Your task to perform on an android device: toggle improve location accuracy Image 0: 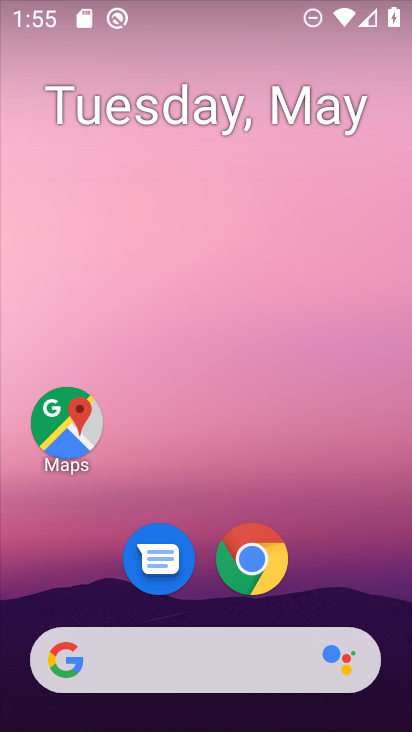
Step 0: drag from (390, 610) to (300, 119)
Your task to perform on an android device: toggle improve location accuracy Image 1: 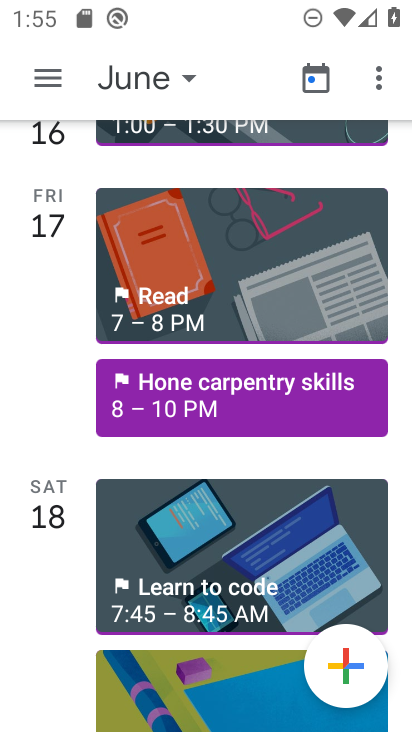
Step 1: press home button
Your task to perform on an android device: toggle improve location accuracy Image 2: 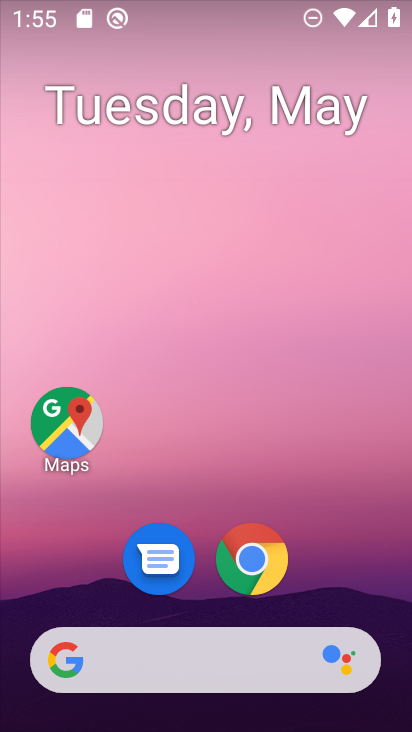
Step 2: drag from (381, 619) to (272, 141)
Your task to perform on an android device: toggle improve location accuracy Image 3: 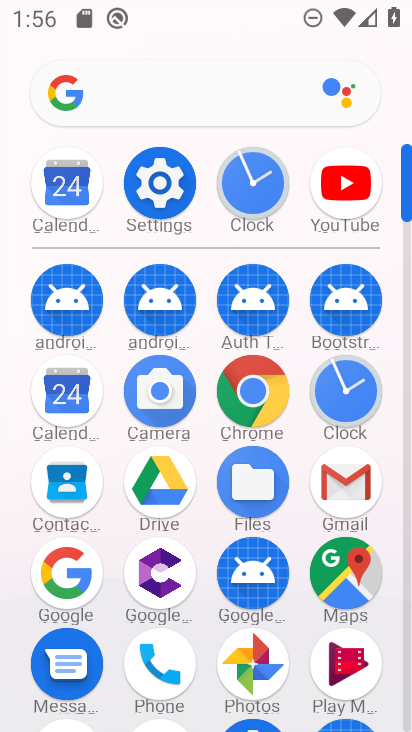
Step 3: click (165, 197)
Your task to perform on an android device: toggle improve location accuracy Image 4: 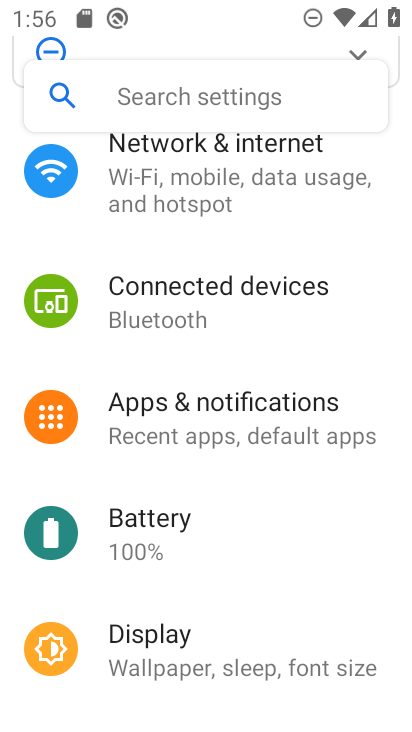
Step 4: drag from (198, 659) to (241, 346)
Your task to perform on an android device: toggle improve location accuracy Image 5: 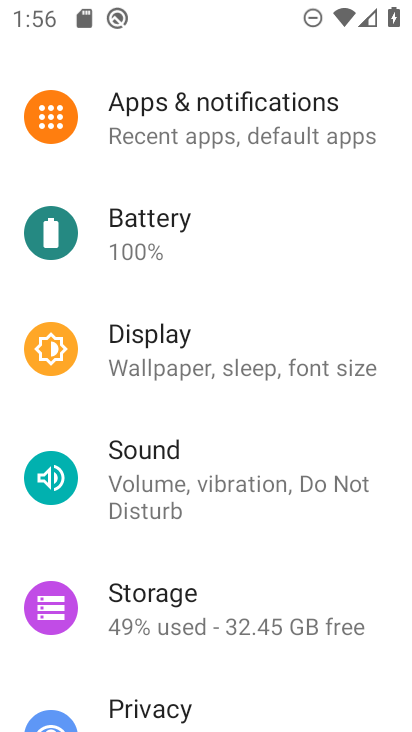
Step 5: drag from (158, 643) to (176, 329)
Your task to perform on an android device: toggle improve location accuracy Image 6: 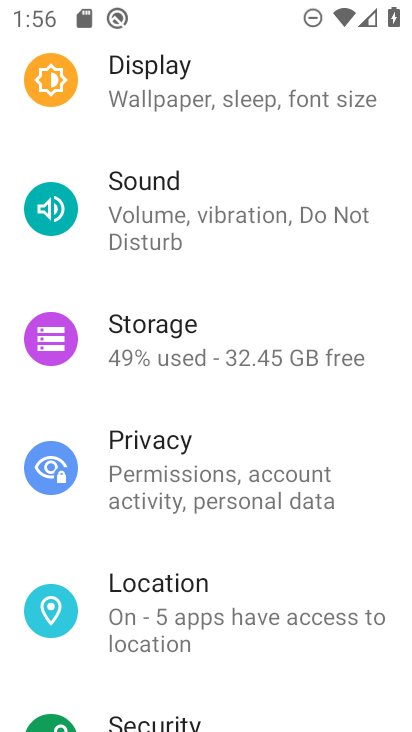
Step 6: click (193, 597)
Your task to perform on an android device: toggle improve location accuracy Image 7: 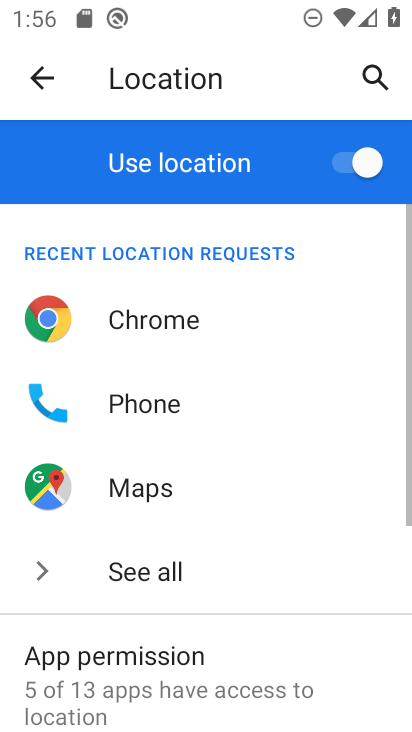
Step 7: drag from (158, 623) to (199, 271)
Your task to perform on an android device: toggle improve location accuracy Image 8: 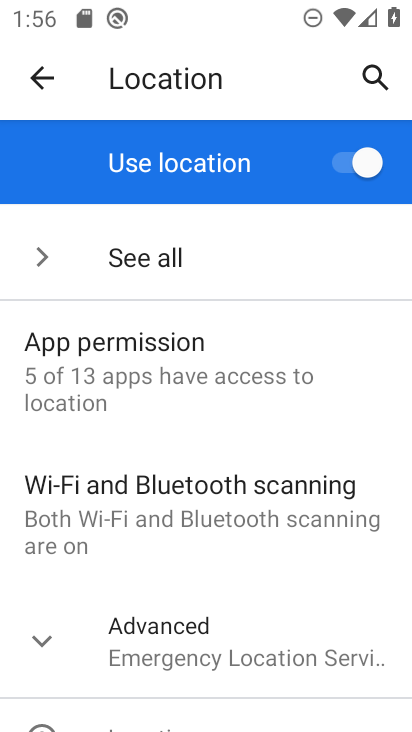
Step 8: click (135, 650)
Your task to perform on an android device: toggle improve location accuracy Image 9: 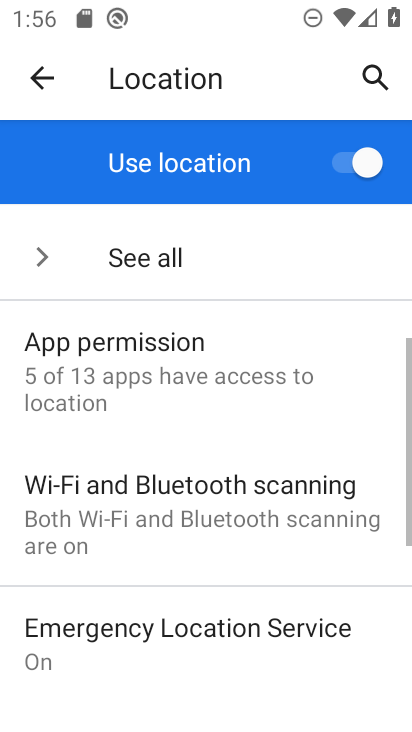
Step 9: drag from (135, 650) to (197, 449)
Your task to perform on an android device: toggle improve location accuracy Image 10: 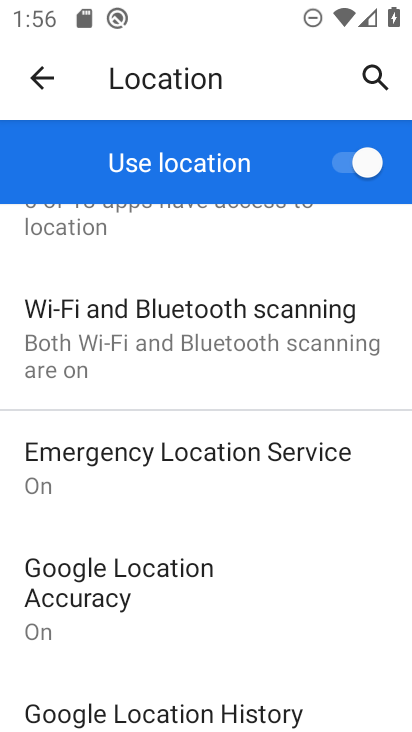
Step 10: click (180, 591)
Your task to perform on an android device: toggle improve location accuracy Image 11: 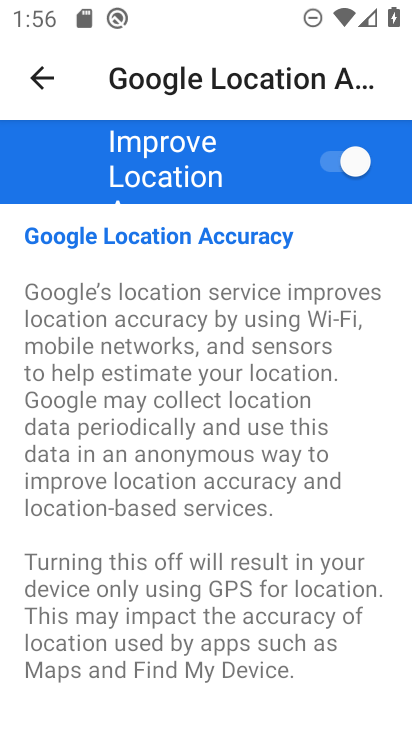
Step 11: click (261, 192)
Your task to perform on an android device: toggle improve location accuracy Image 12: 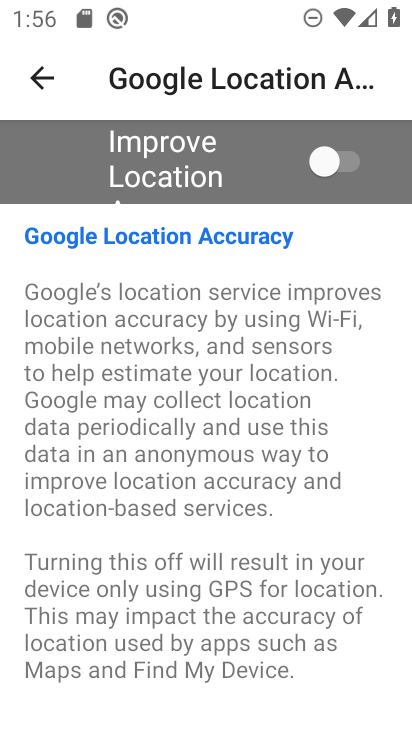
Step 12: task complete